Your task to perform on an android device: visit the assistant section in the google photos Image 0: 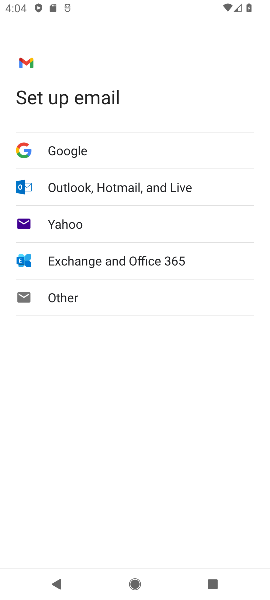
Step 0: press home button
Your task to perform on an android device: visit the assistant section in the google photos Image 1: 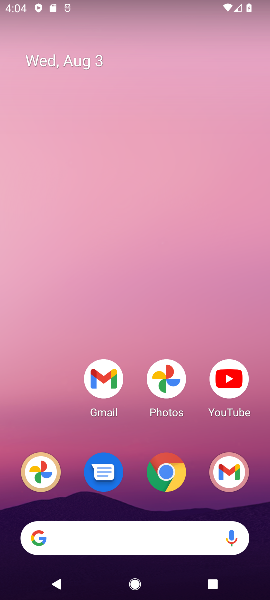
Step 1: drag from (52, 423) to (121, 42)
Your task to perform on an android device: visit the assistant section in the google photos Image 2: 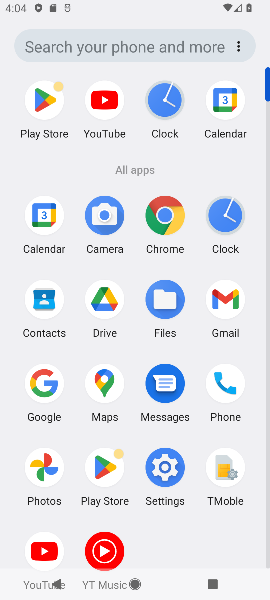
Step 2: click (48, 457)
Your task to perform on an android device: visit the assistant section in the google photos Image 3: 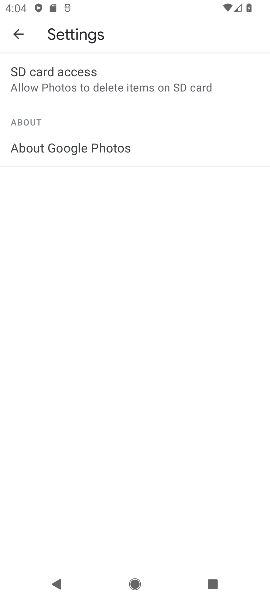
Step 3: click (25, 36)
Your task to perform on an android device: visit the assistant section in the google photos Image 4: 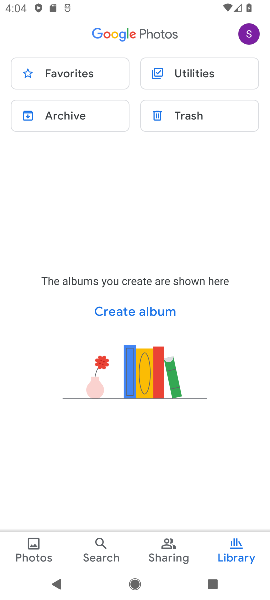
Step 4: click (25, 547)
Your task to perform on an android device: visit the assistant section in the google photos Image 5: 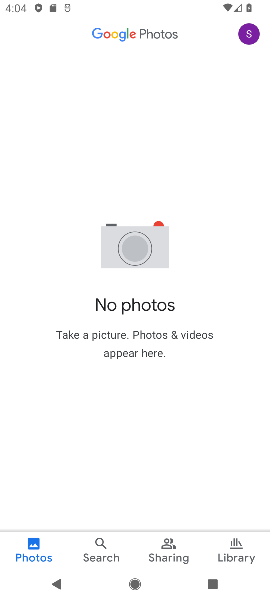
Step 5: click (234, 538)
Your task to perform on an android device: visit the assistant section in the google photos Image 6: 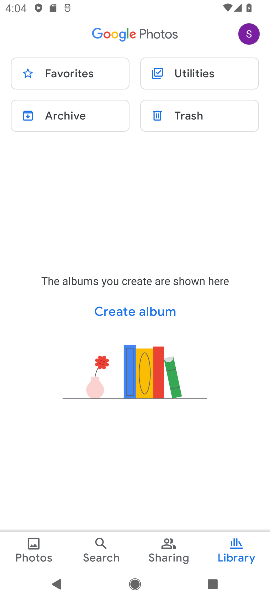
Step 6: click (188, 63)
Your task to perform on an android device: visit the assistant section in the google photos Image 7: 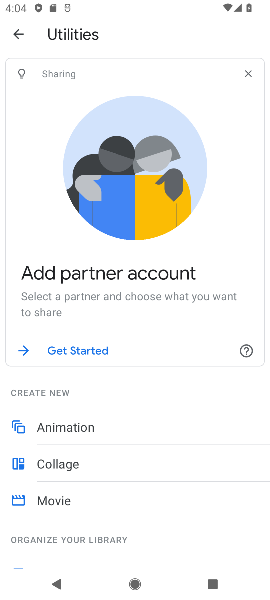
Step 7: click (13, 36)
Your task to perform on an android device: visit the assistant section in the google photos Image 8: 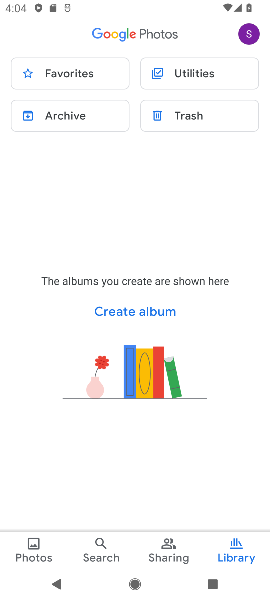
Step 8: click (196, 116)
Your task to perform on an android device: visit the assistant section in the google photos Image 9: 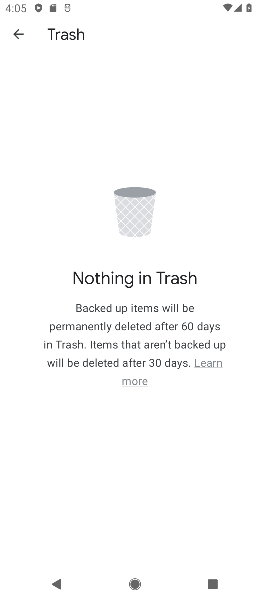
Step 9: task complete